Your task to perform on an android device: Open maps Image 0: 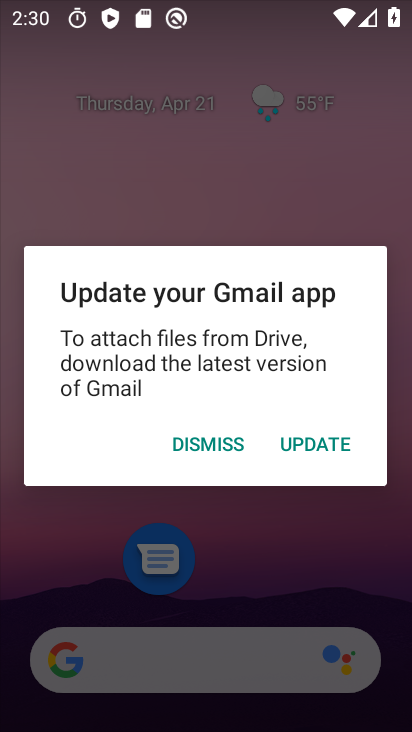
Step 0: press home button
Your task to perform on an android device: Open maps Image 1: 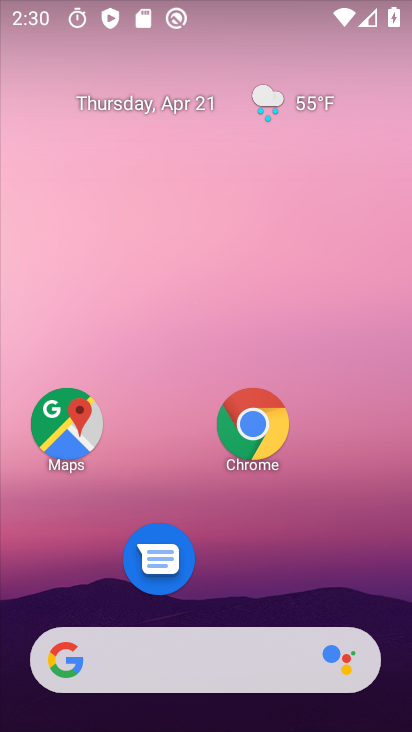
Step 1: click (66, 437)
Your task to perform on an android device: Open maps Image 2: 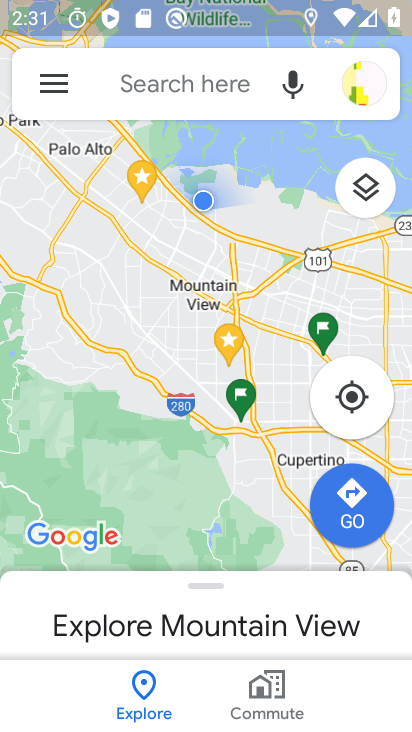
Step 2: task complete